Your task to perform on an android device: find which apps use the phone's location Image 0: 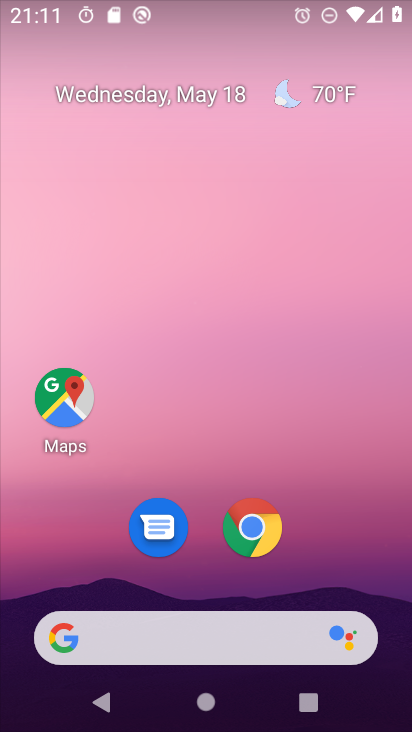
Step 0: drag from (391, 624) to (390, 193)
Your task to perform on an android device: find which apps use the phone's location Image 1: 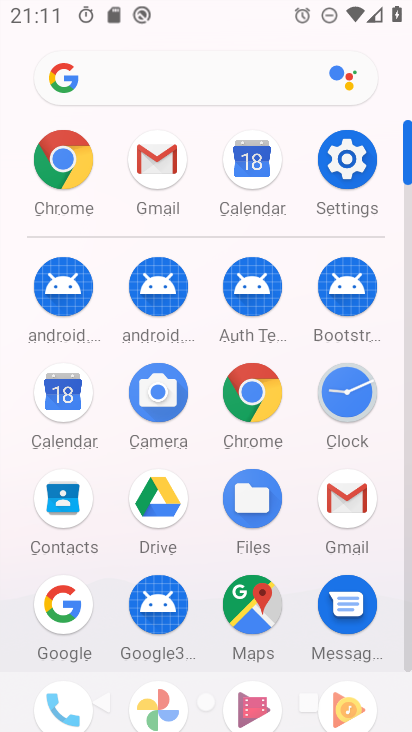
Step 1: click (338, 165)
Your task to perform on an android device: find which apps use the phone's location Image 2: 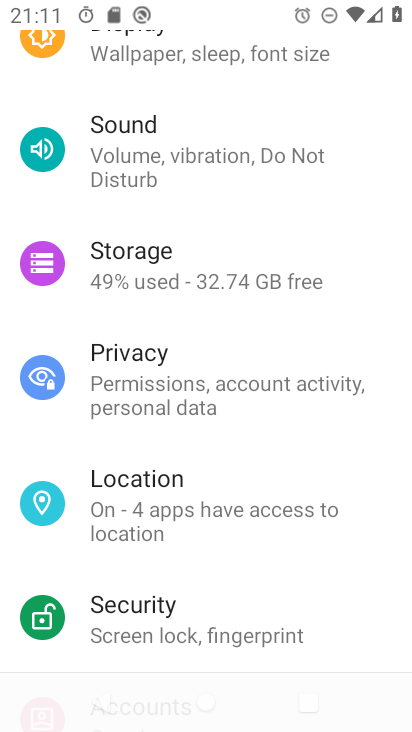
Step 2: click (122, 479)
Your task to perform on an android device: find which apps use the phone's location Image 3: 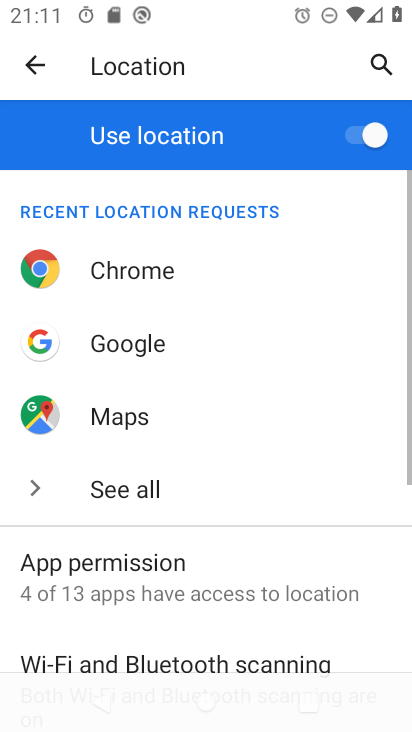
Step 3: click (65, 571)
Your task to perform on an android device: find which apps use the phone's location Image 4: 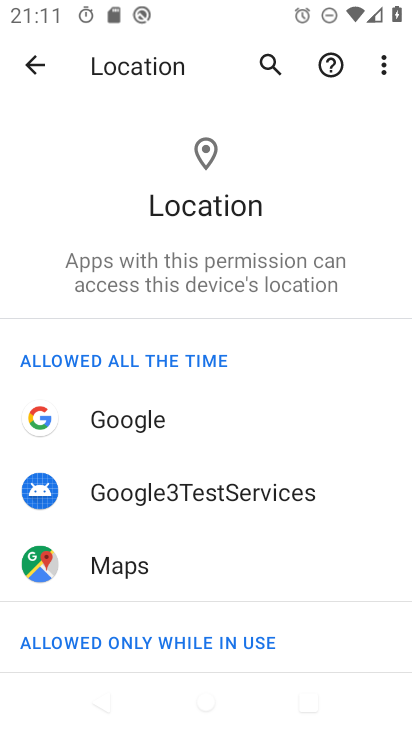
Step 4: task complete